Your task to perform on an android device: turn on notifications settings in the gmail app Image 0: 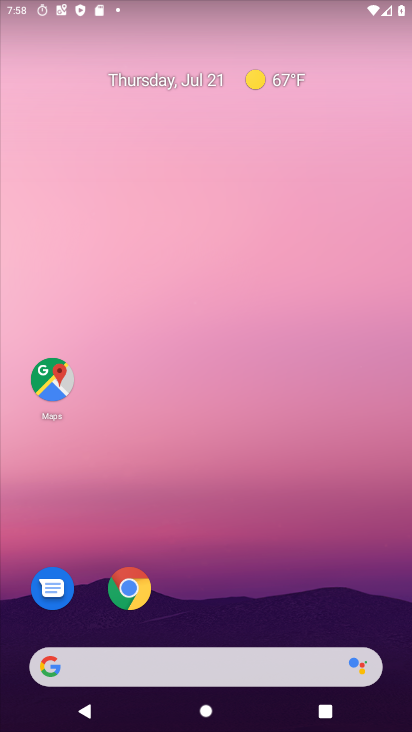
Step 0: drag from (247, 648) to (250, 240)
Your task to perform on an android device: turn on notifications settings in the gmail app Image 1: 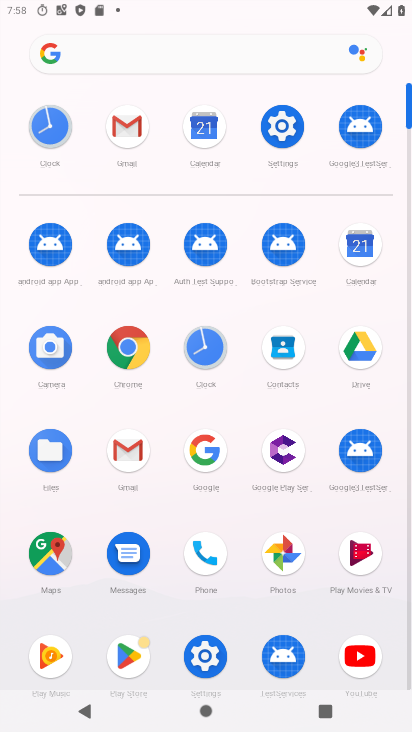
Step 1: click (139, 127)
Your task to perform on an android device: turn on notifications settings in the gmail app Image 2: 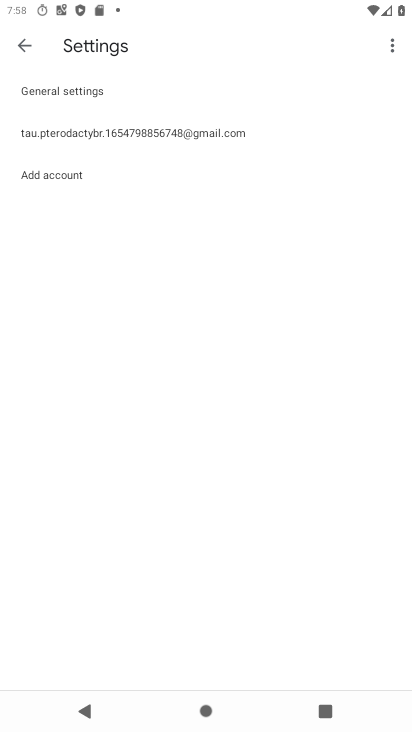
Step 2: click (88, 128)
Your task to perform on an android device: turn on notifications settings in the gmail app Image 3: 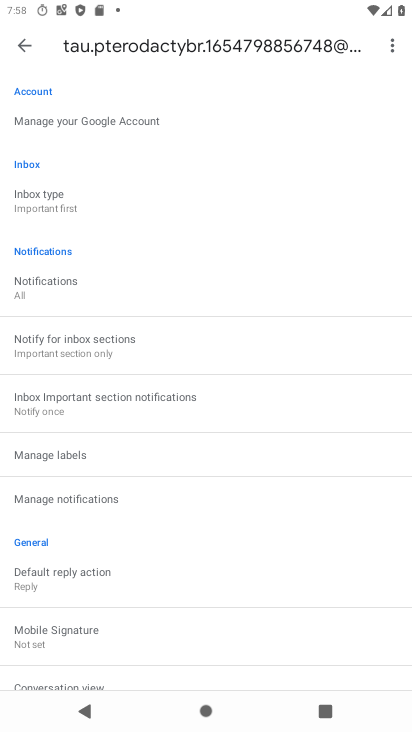
Step 3: click (90, 503)
Your task to perform on an android device: turn on notifications settings in the gmail app Image 4: 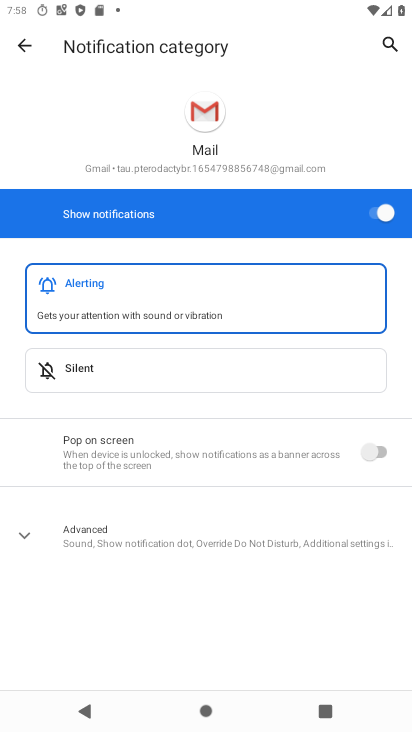
Step 4: task complete